Your task to perform on an android device: toggle sleep mode Image 0: 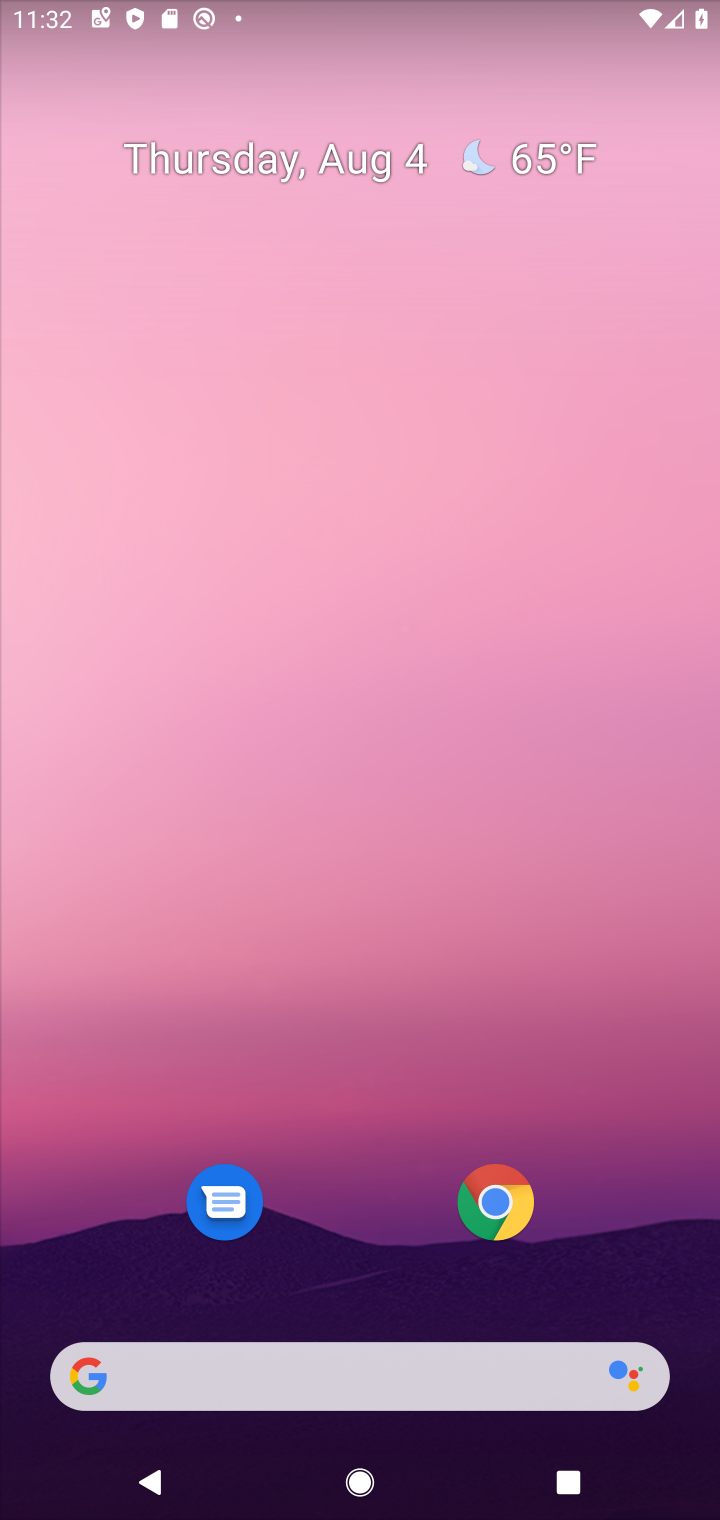
Step 0: drag from (290, 1025) to (388, 277)
Your task to perform on an android device: toggle sleep mode Image 1: 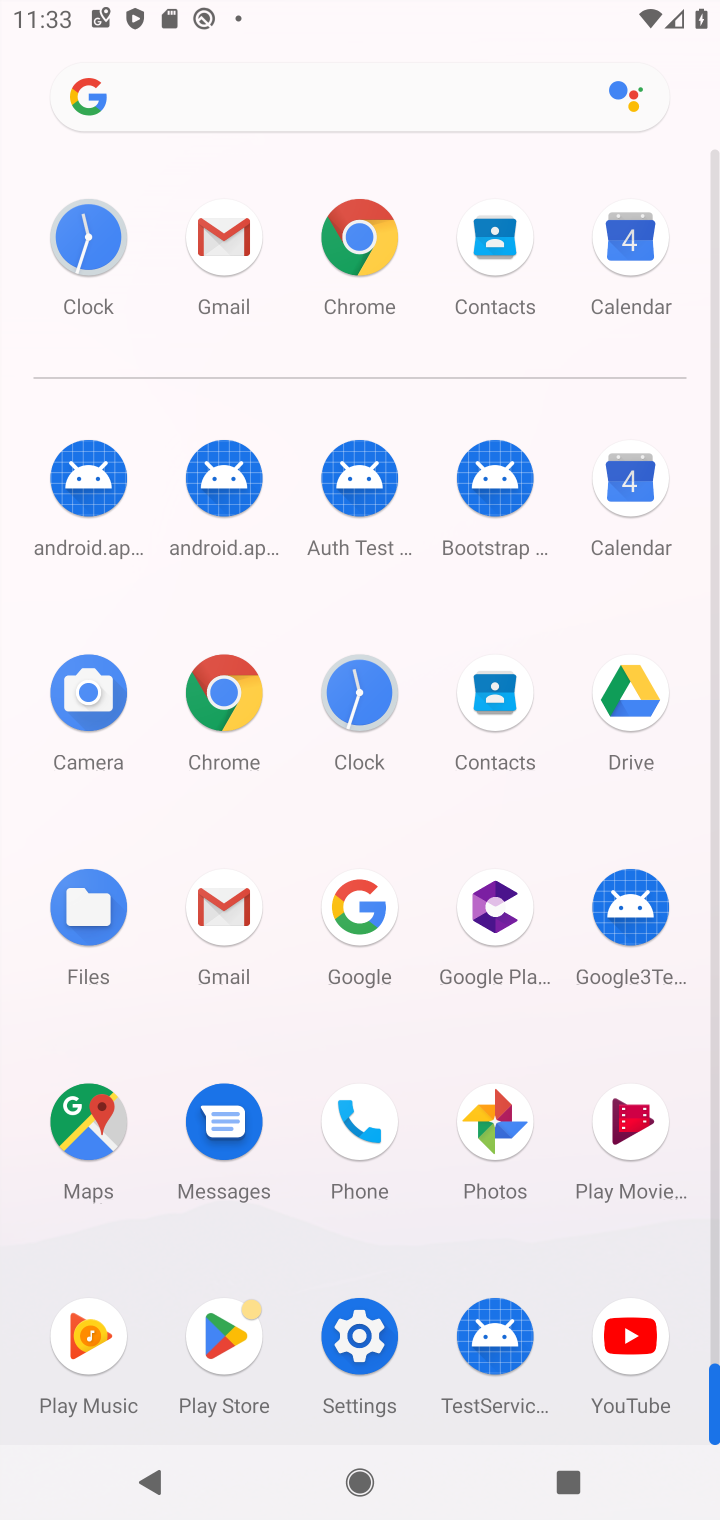
Step 1: click (386, 1318)
Your task to perform on an android device: toggle sleep mode Image 2: 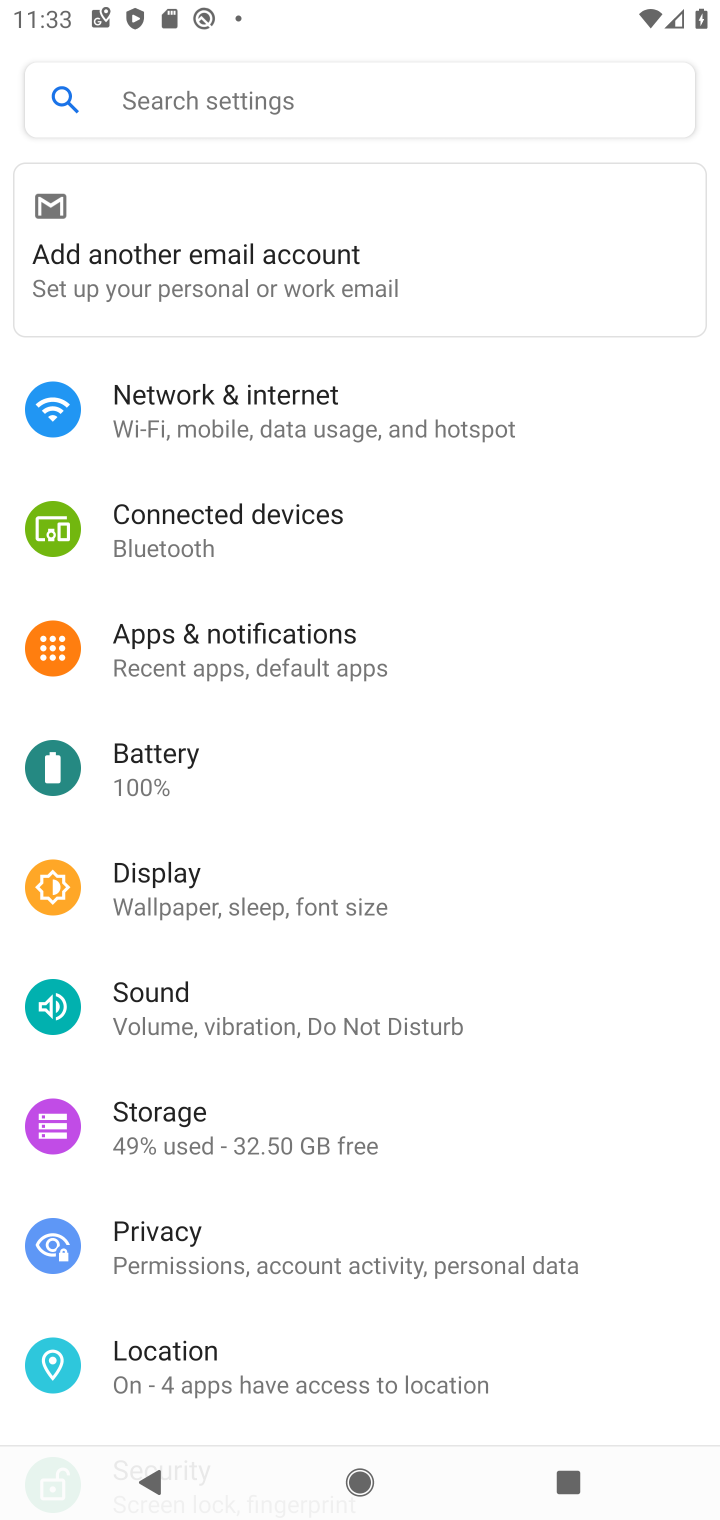
Step 2: click (201, 140)
Your task to perform on an android device: toggle sleep mode Image 3: 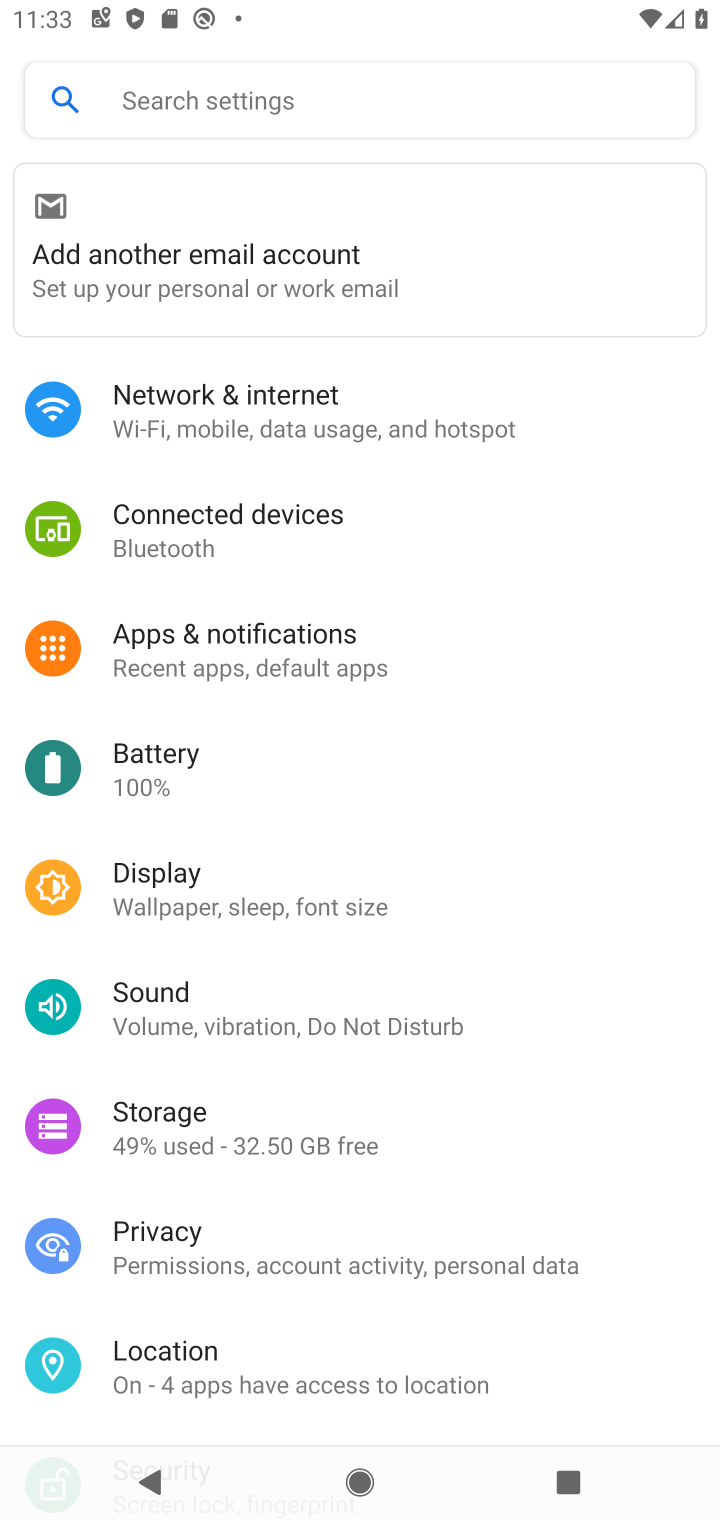
Step 3: click (205, 119)
Your task to perform on an android device: toggle sleep mode Image 4: 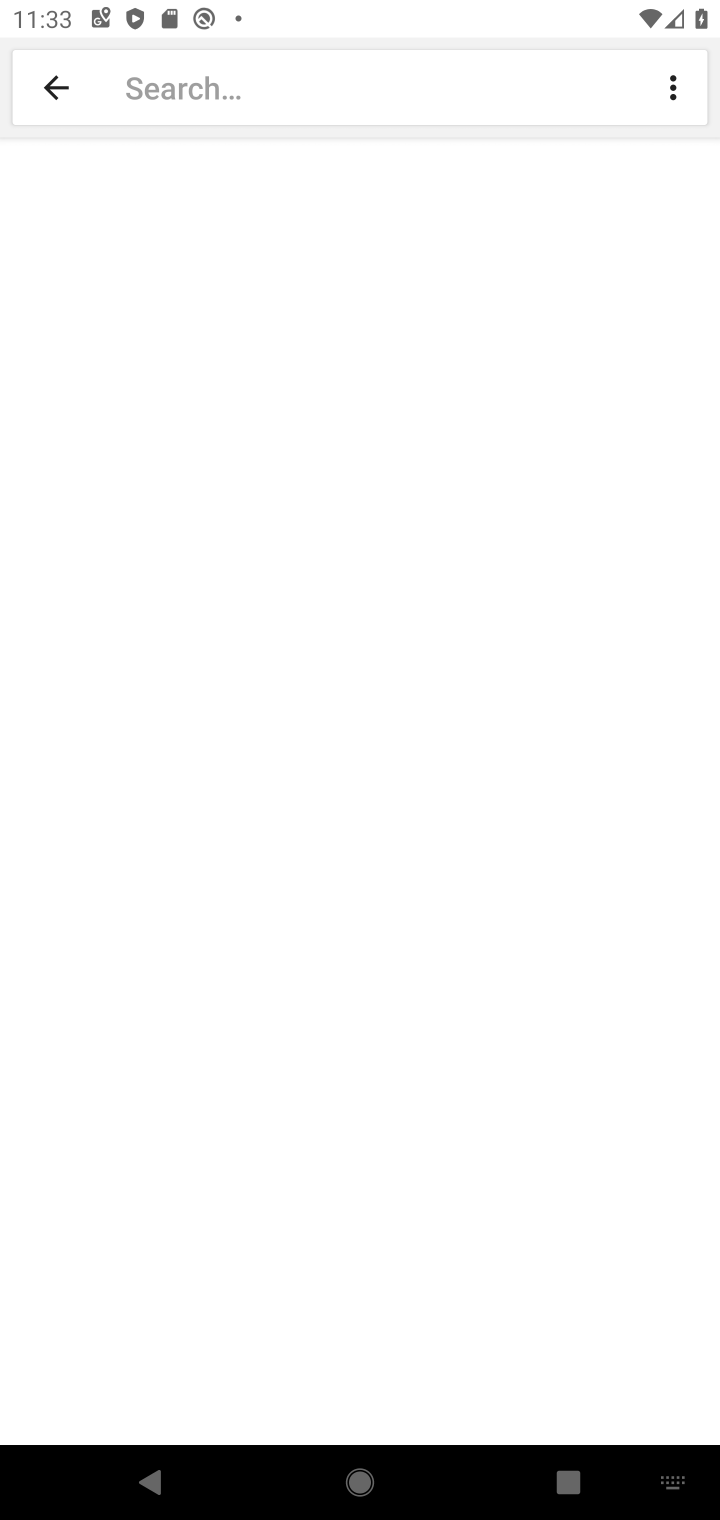
Step 4: type "sleep mode"
Your task to perform on an android device: toggle sleep mode Image 5: 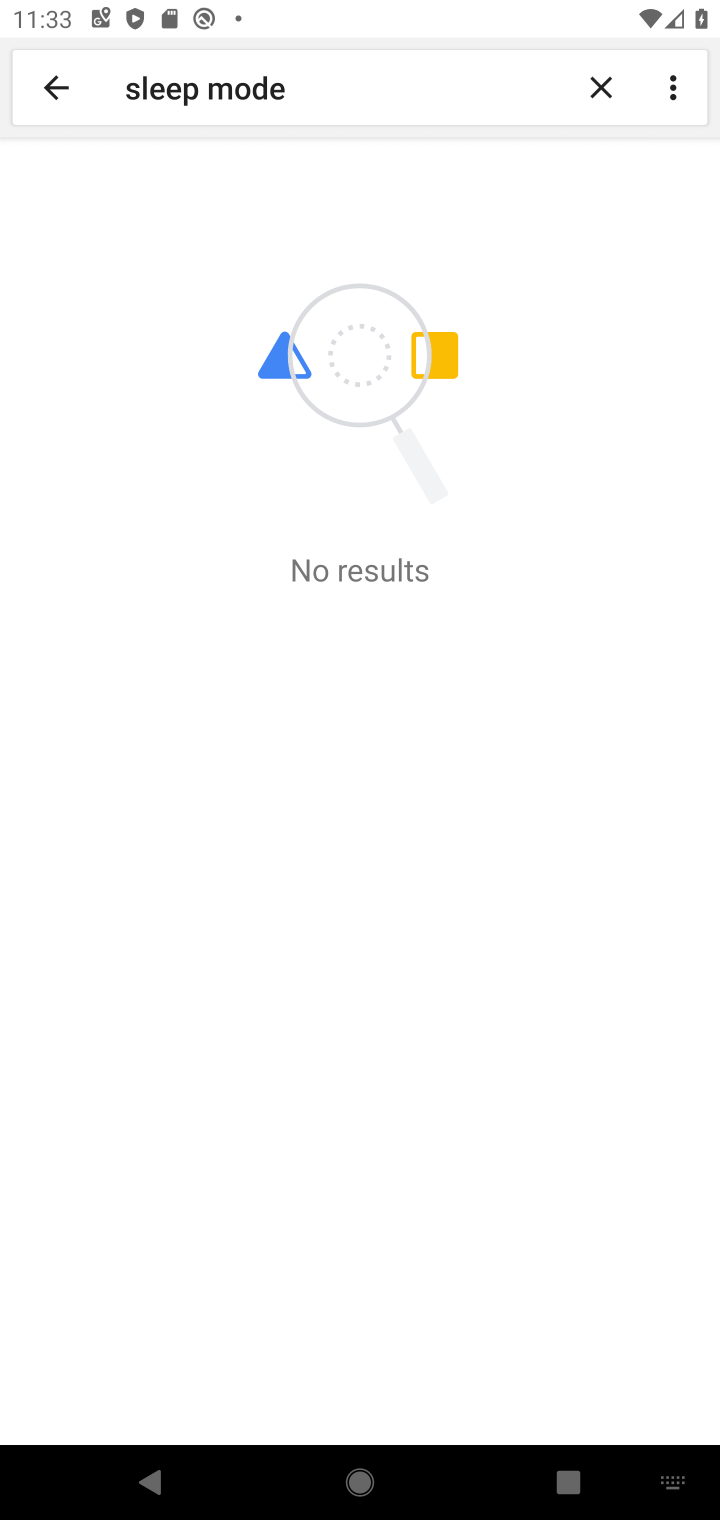
Step 5: task complete